Your task to perform on an android device: change alarm snooze length Image 0: 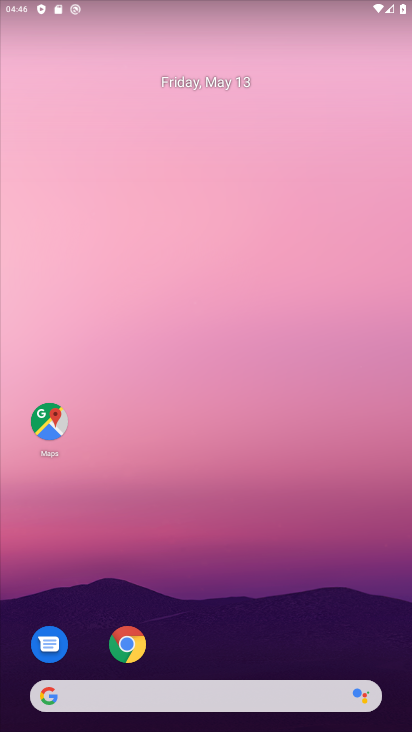
Step 0: drag from (222, 592) to (311, 35)
Your task to perform on an android device: change alarm snooze length Image 1: 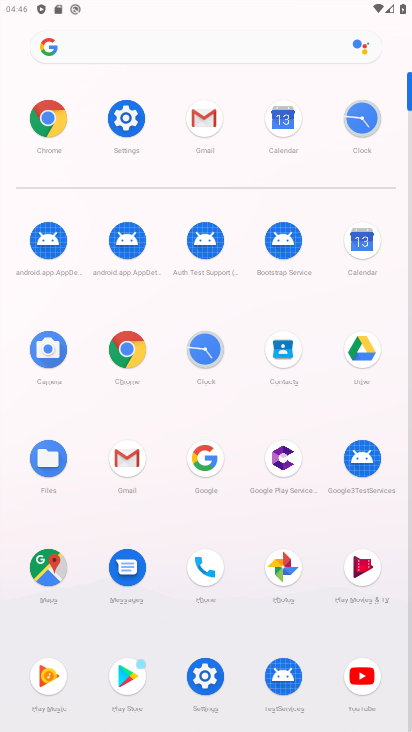
Step 1: click (132, 110)
Your task to perform on an android device: change alarm snooze length Image 2: 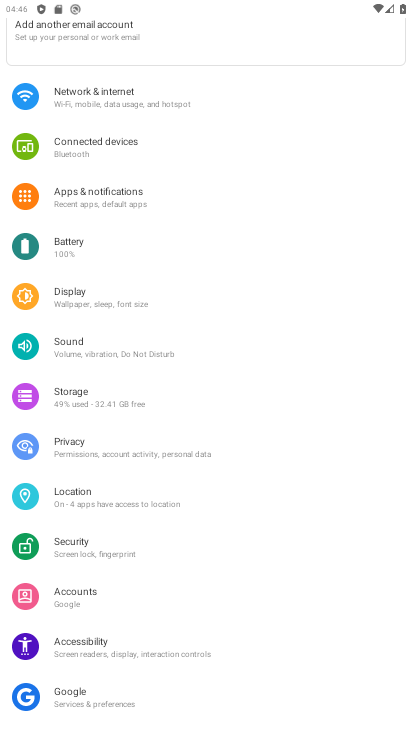
Step 2: press back button
Your task to perform on an android device: change alarm snooze length Image 3: 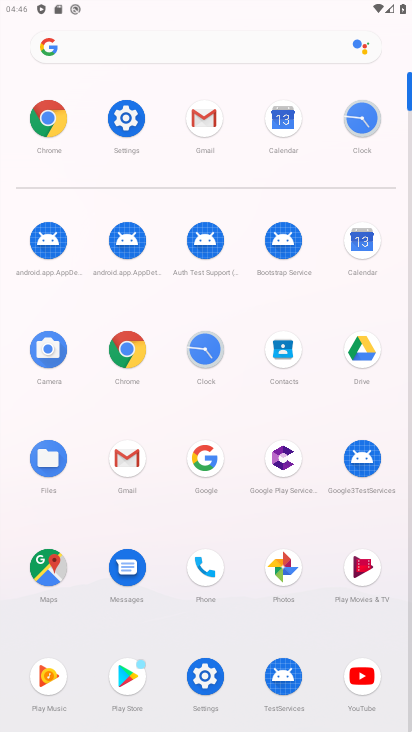
Step 3: click (199, 341)
Your task to perform on an android device: change alarm snooze length Image 4: 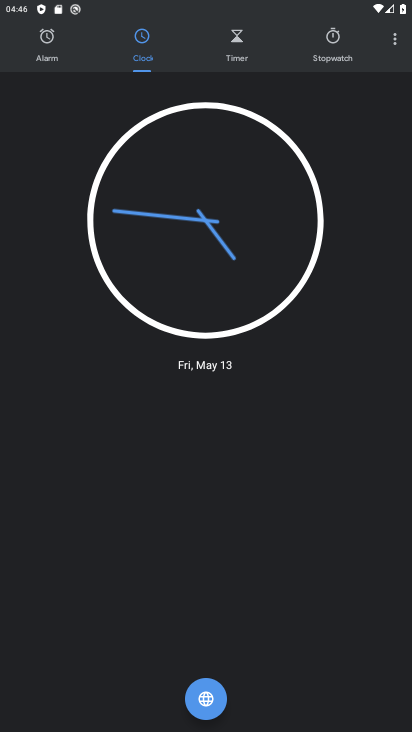
Step 4: click (395, 31)
Your task to perform on an android device: change alarm snooze length Image 5: 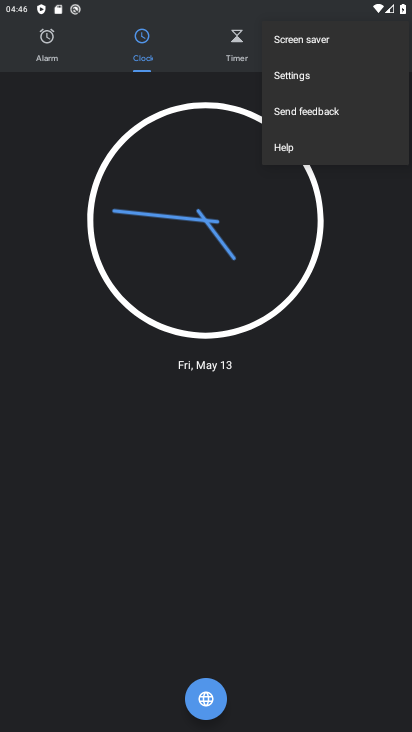
Step 5: click (309, 71)
Your task to perform on an android device: change alarm snooze length Image 6: 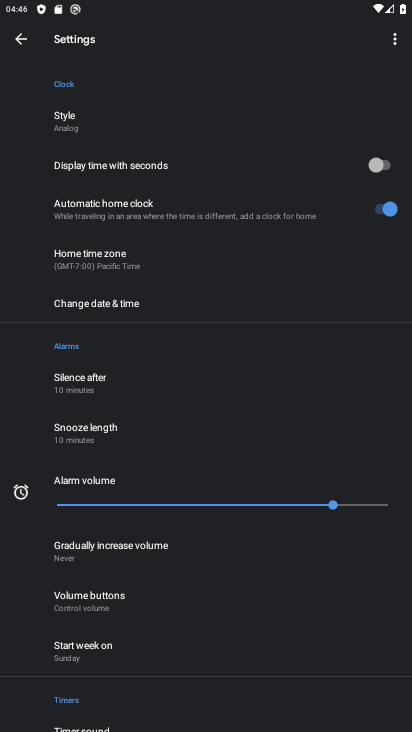
Step 6: click (129, 430)
Your task to perform on an android device: change alarm snooze length Image 7: 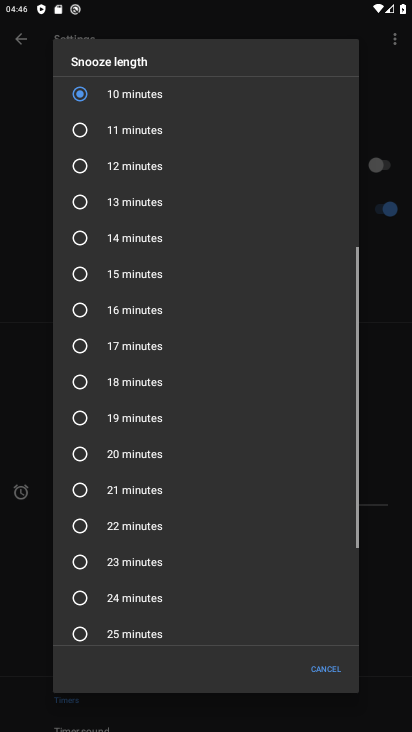
Step 7: click (89, 127)
Your task to perform on an android device: change alarm snooze length Image 8: 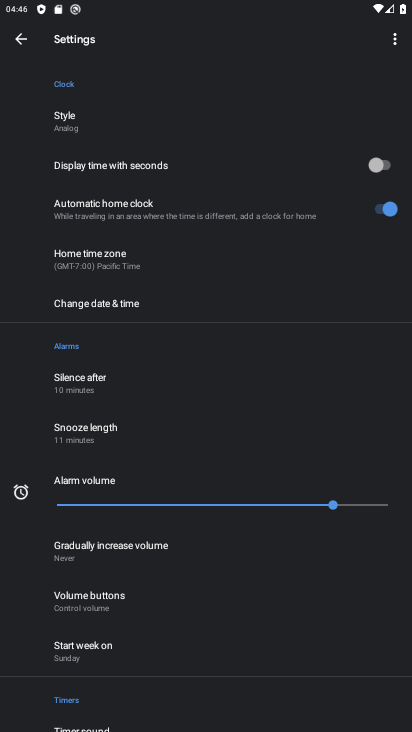
Step 8: task complete